Your task to perform on an android device: set the stopwatch Image 0: 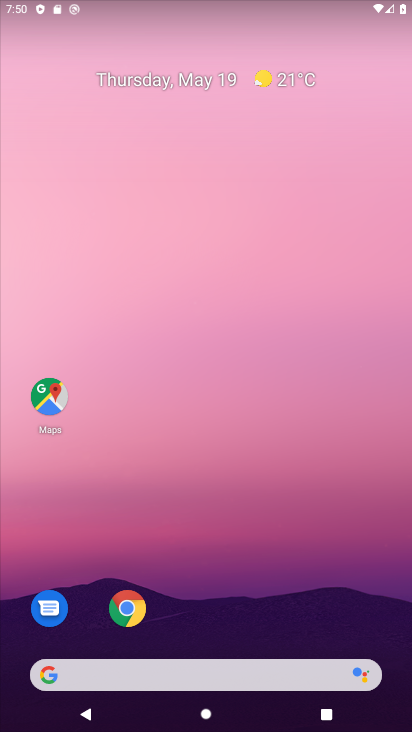
Step 0: drag from (251, 538) to (226, 118)
Your task to perform on an android device: set the stopwatch Image 1: 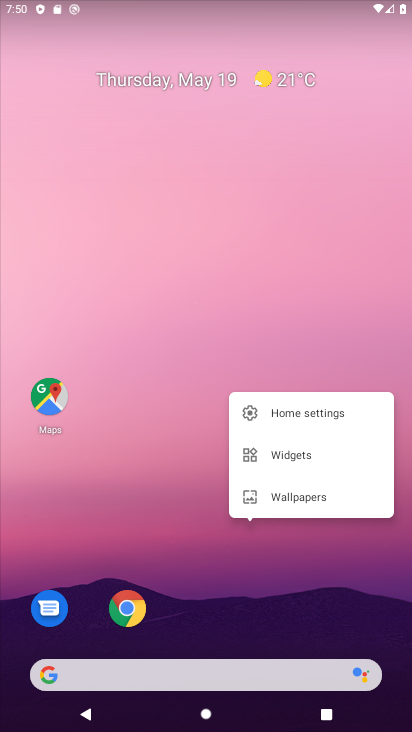
Step 1: click (253, 583)
Your task to perform on an android device: set the stopwatch Image 2: 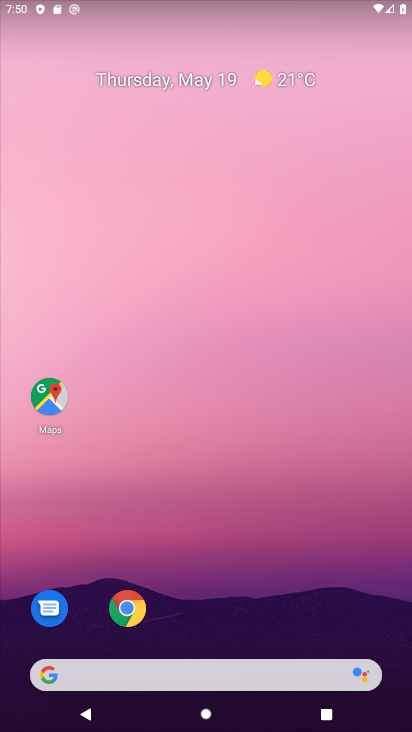
Step 2: drag from (222, 580) to (288, 132)
Your task to perform on an android device: set the stopwatch Image 3: 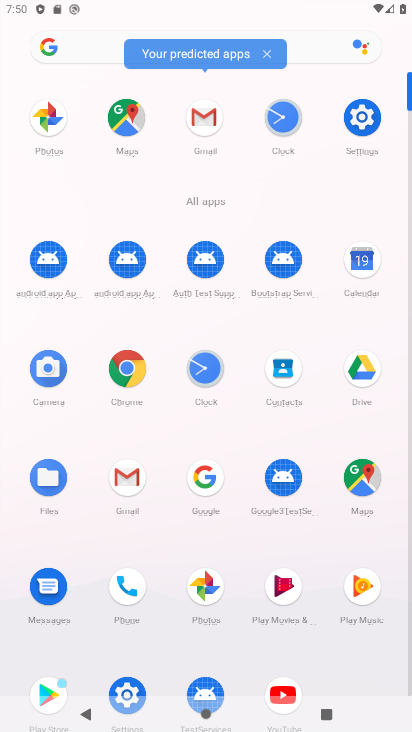
Step 3: click (276, 117)
Your task to perform on an android device: set the stopwatch Image 4: 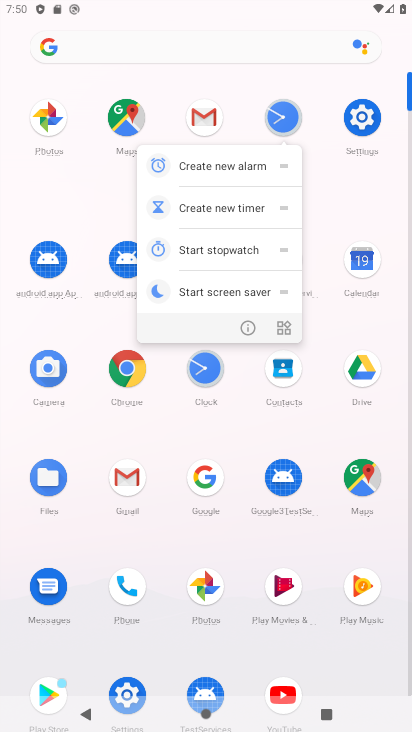
Step 4: click (292, 114)
Your task to perform on an android device: set the stopwatch Image 5: 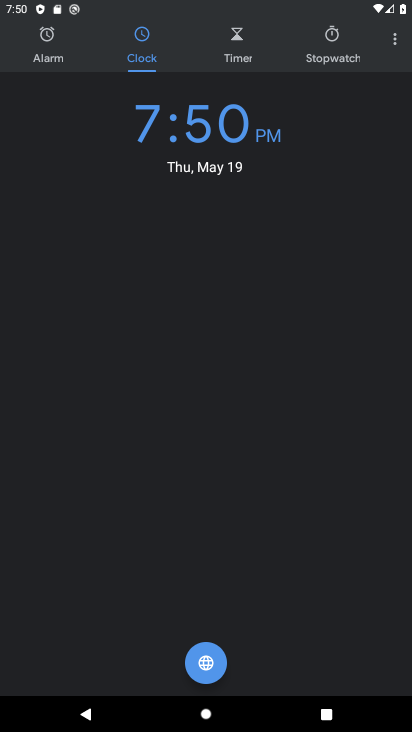
Step 5: click (333, 42)
Your task to perform on an android device: set the stopwatch Image 6: 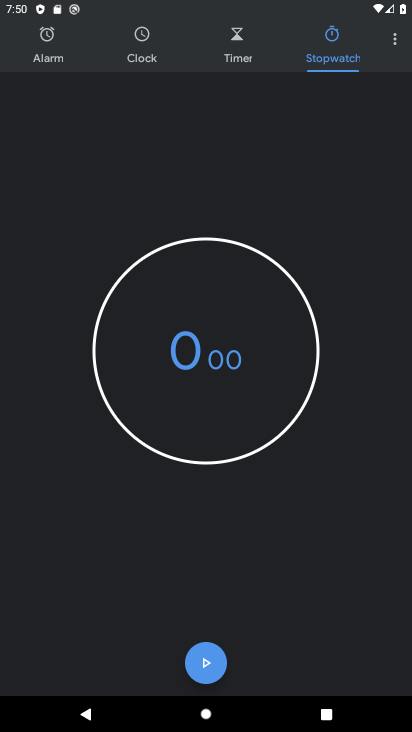
Step 6: task complete